Your task to perform on an android device: When is my next meeting? Image 0: 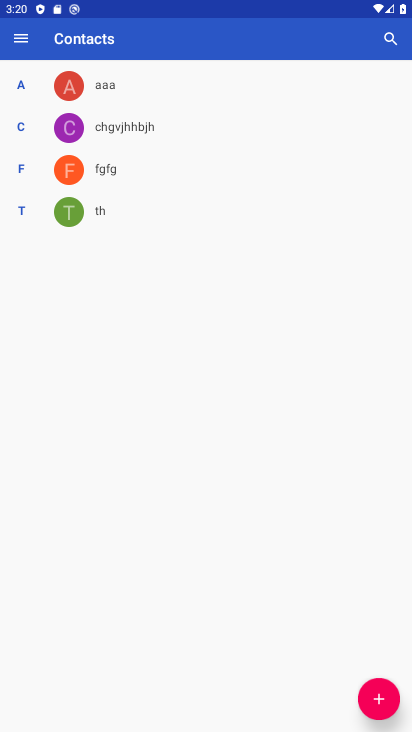
Step 0: press home button
Your task to perform on an android device: When is my next meeting? Image 1: 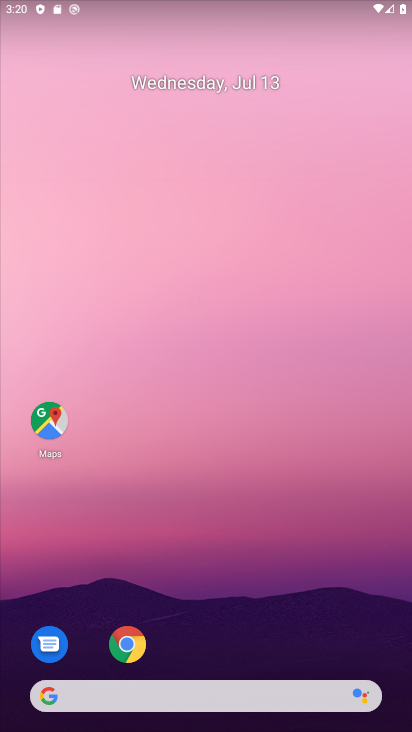
Step 1: drag from (234, 644) to (230, 195)
Your task to perform on an android device: When is my next meeting? Image 2: 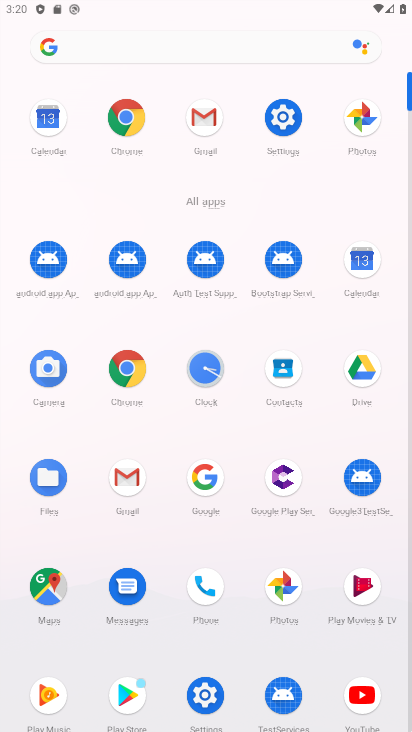
Step 2: click (345, 261)
Your task to perform on an android device: When is my next meeting? Image 3: 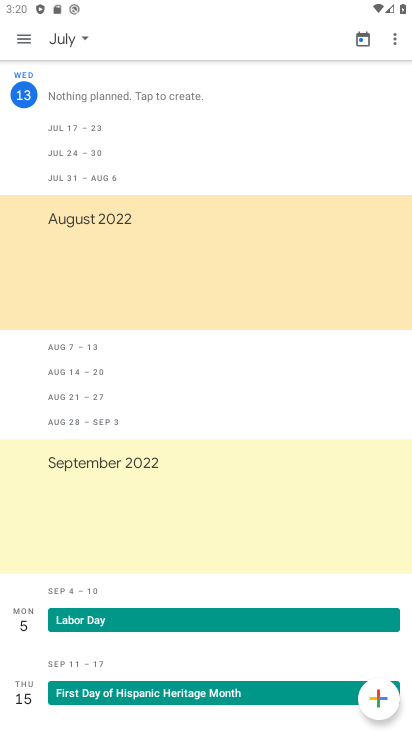
Step 3: task complete